Your task to perform on an android device: Go to internet settings Image 0: 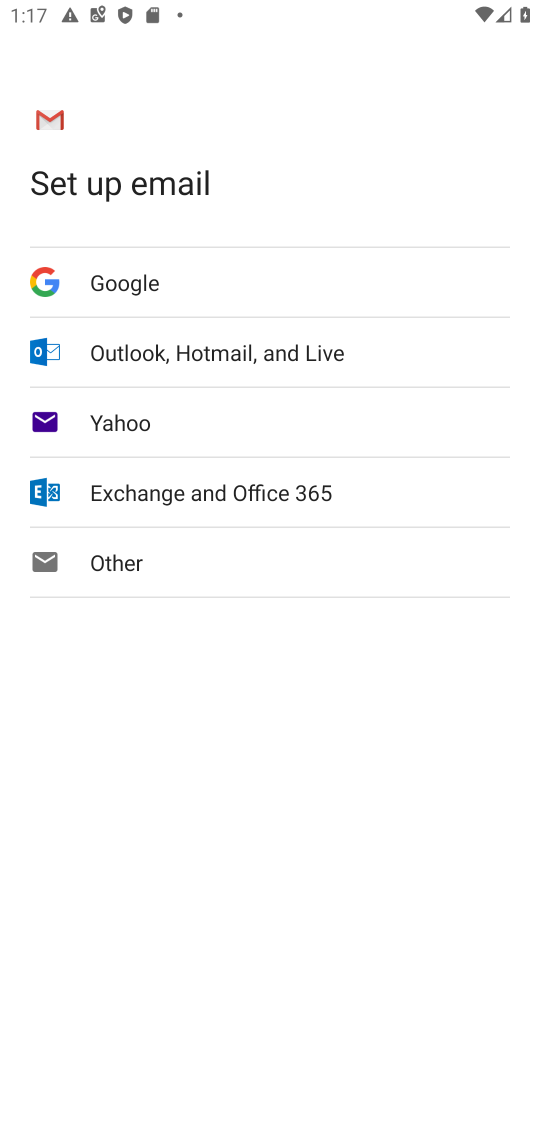
Step 0: press home button
Your task to perform on an android device: Go to internet settings Image 1: 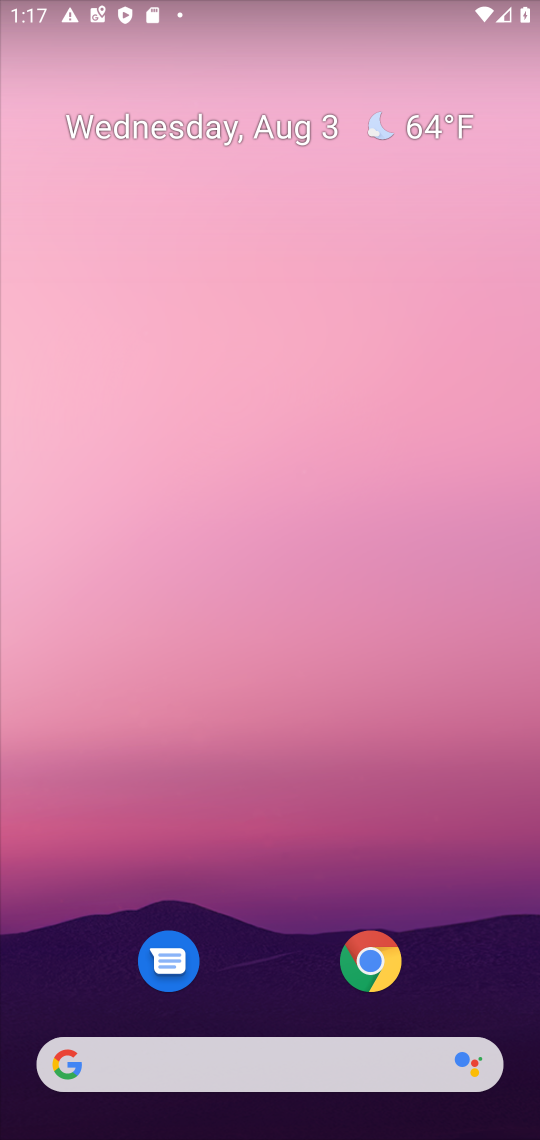
Step 1: drag from (276, 944) to (315, 3)
Your task to perform on an android device: Go to internet settings Image 2: 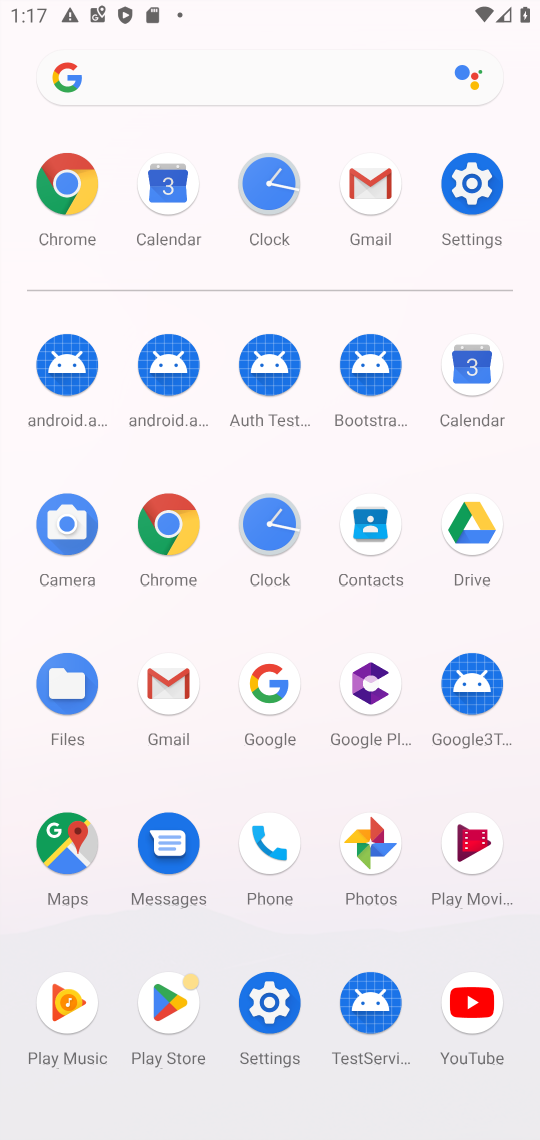
Step 2: click (476, 185)
Your task to perform on an android device: Go to internet settings Image 3: 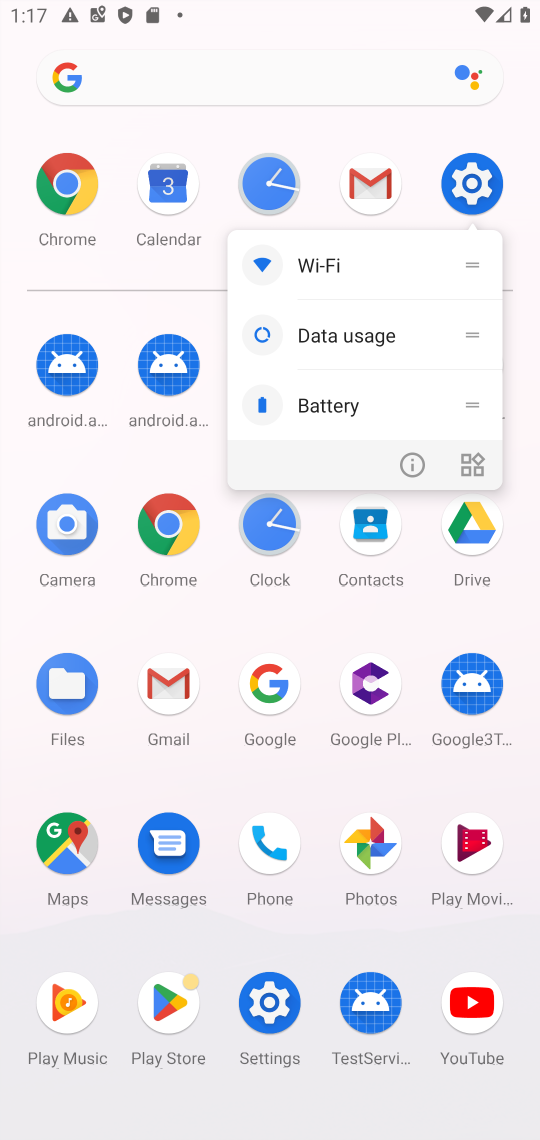
Step 3: click (471, 187)
Your task to perform on an android device: Go to internet settings Image 4: 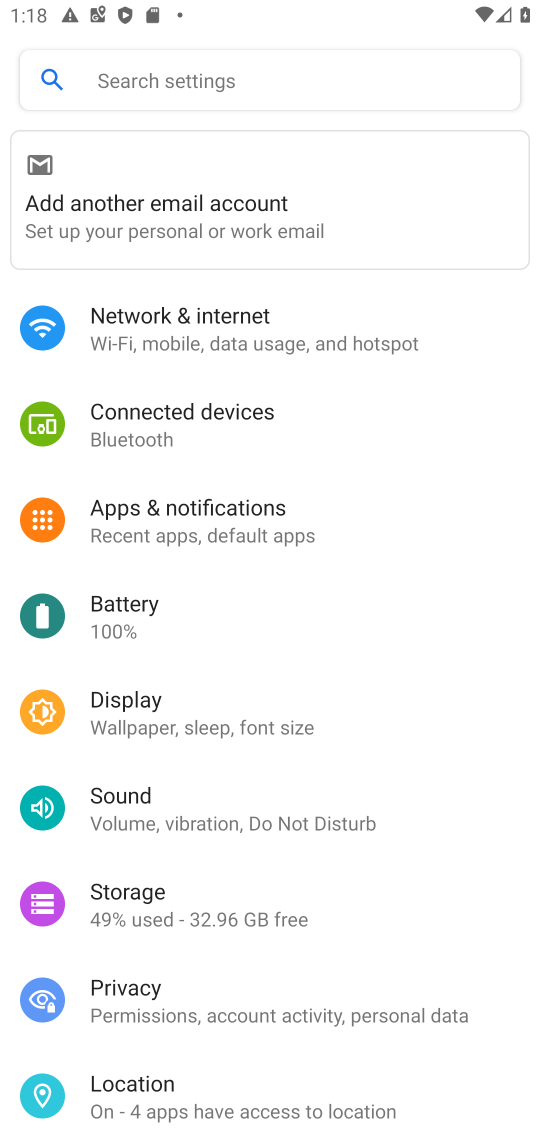
Step 4: click (177, 343)
Your task to perform on an android device: Go to internet settings Image 5: 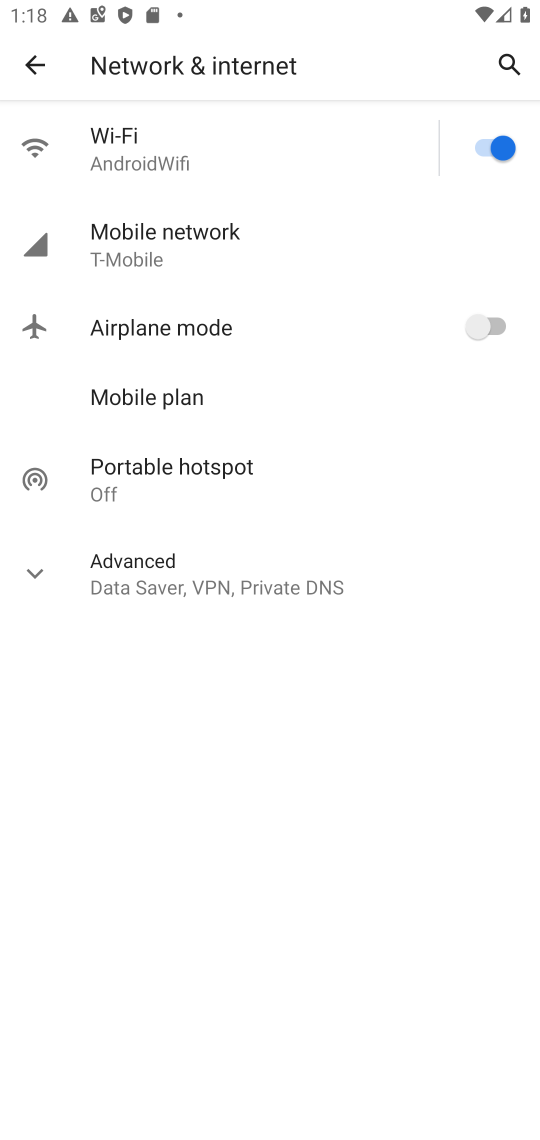
Step 5: click (36, 578)
Your task to perform on an android device: Go to internet settings Image 6: 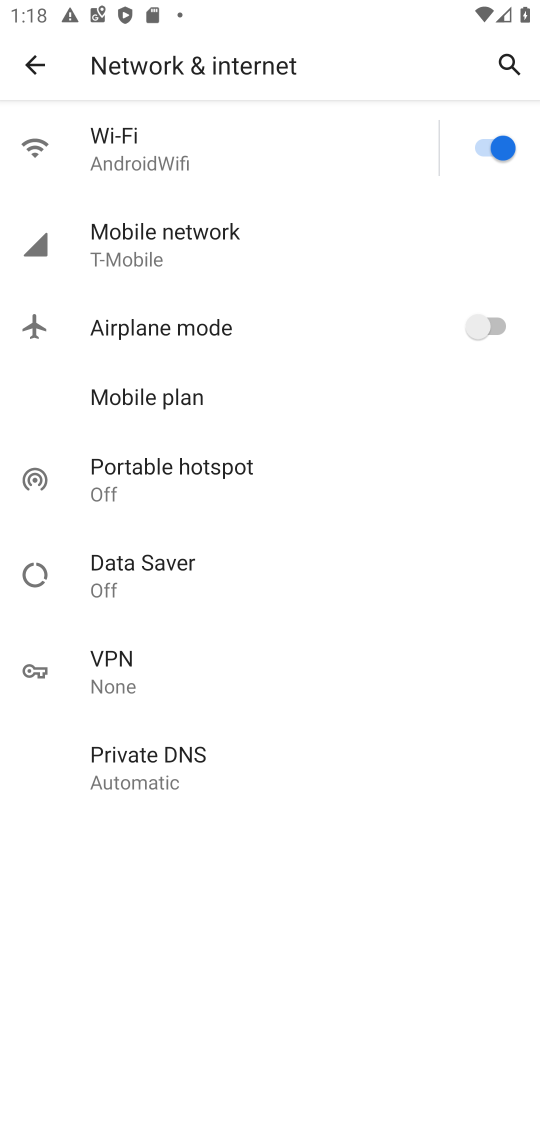
Step 6: task complete